Your task to perform on an android device: turn off translation in the chrome app Image 0: 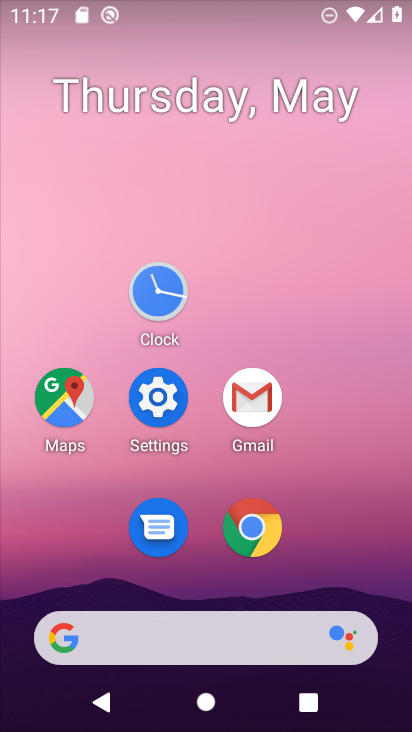
Step 0: click (273, 538)
Your task to perform on an android device: turn off translation in the chrome app Image 1: 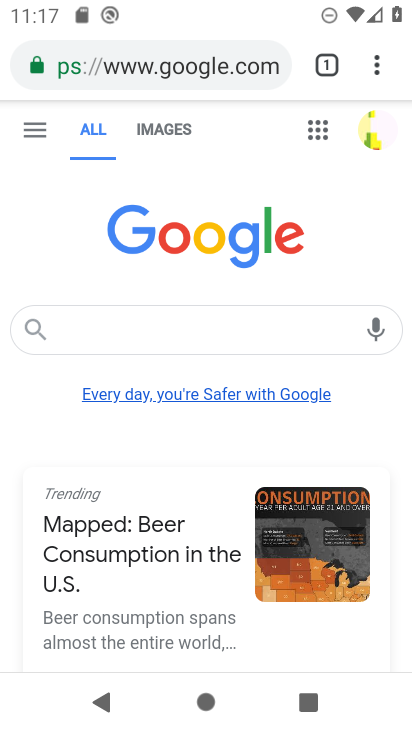
Step 1: click (373, 73)
Your task to perform on an android device: turn off translation in the chrome app Image 2: 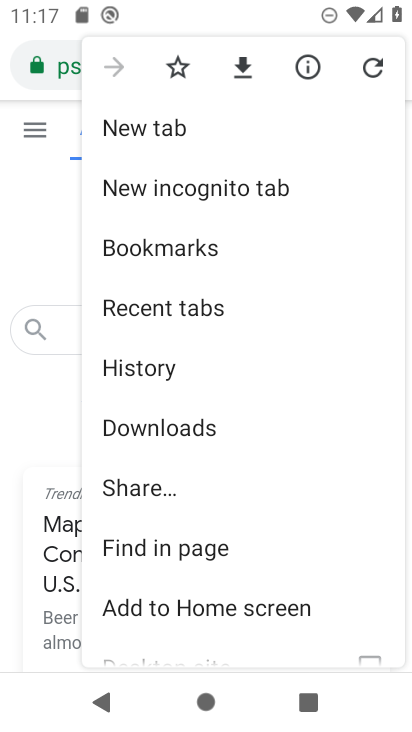
Step 2: drag from (246, 575) to (252, 212)
Your task to perform on an android device: turn off translation in the chrome app Image 3: 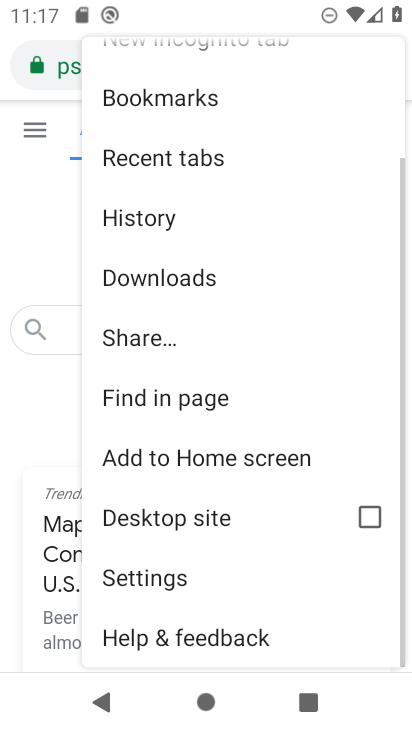
Step 3: click (205, 564)
Your task to perform on an android device: turn off translation in the chrome app Image 4: 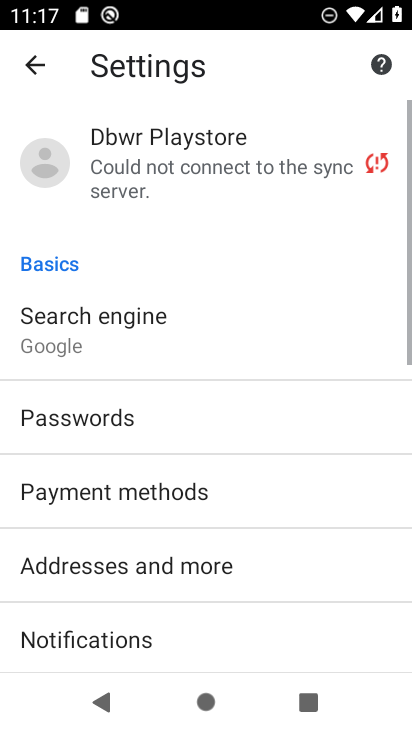
Step 4: drag from (157, 673) to (186, 308)
Your task to perform on an android device: turn off translation in the chrome app Image 5: 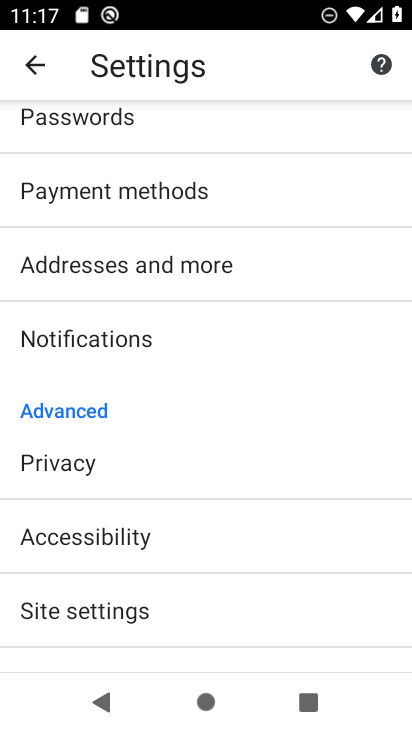
Step 5: drag from (188, 535) to (211, 387)
Your task to perform on an android device: turn off translation in the chrome app Image 6: 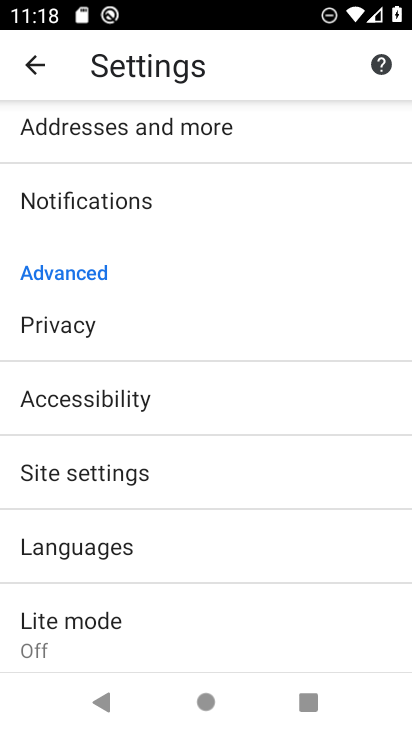
Step 6: click (220, 528)
Your task to perform on an android device: turn off translation in the chrome app Image 7: 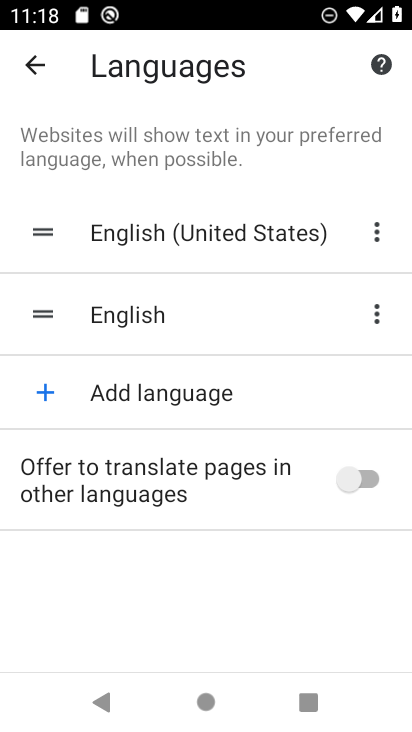
Step 7: click (351, 486)
Your task to perform on an android device: turn off translation in the chrome app Image 8: 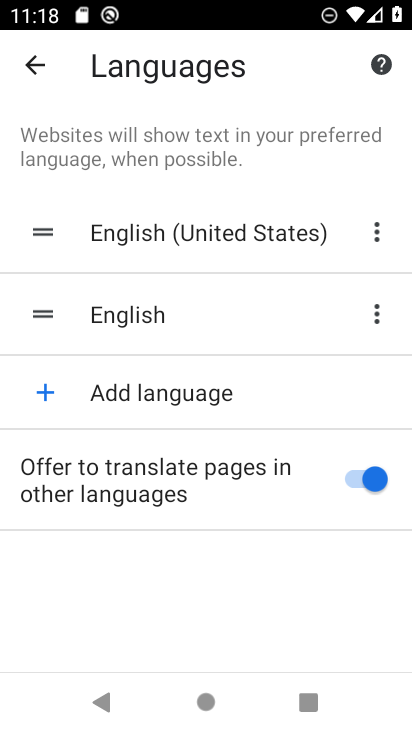
Step 8: task complete